Your task to perform on an android device: Open Yahoo.com Image 0: 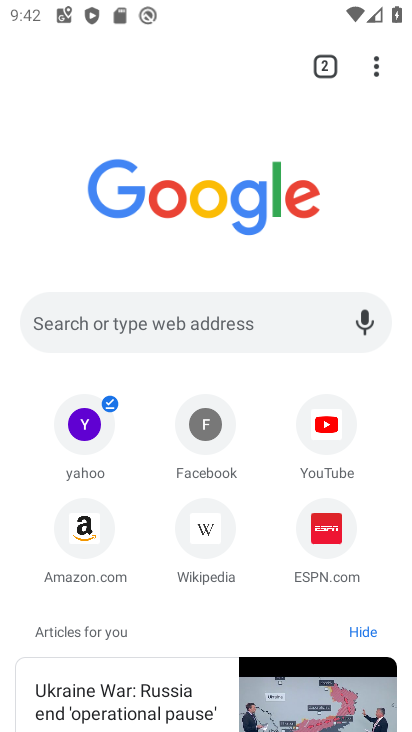
Step 0: click (82, 446)
Your task to perform on an android device: Open Yahoo.com Image 1: 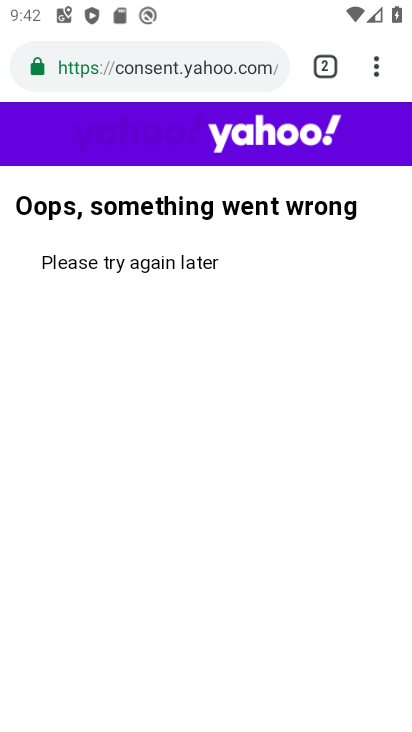
Step 1: click (378, 73)
Your task to perform on an android device: Open Yahoo.com Image 2: 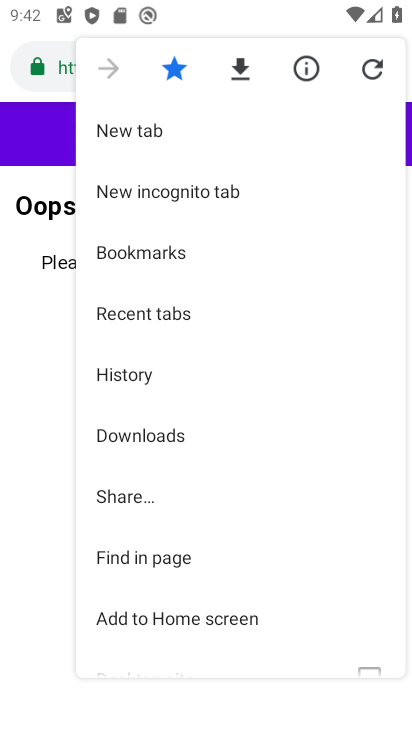
Step 2: click (135, 123)
Your task to perform on an android device: Open Yahoo.com Image 3: 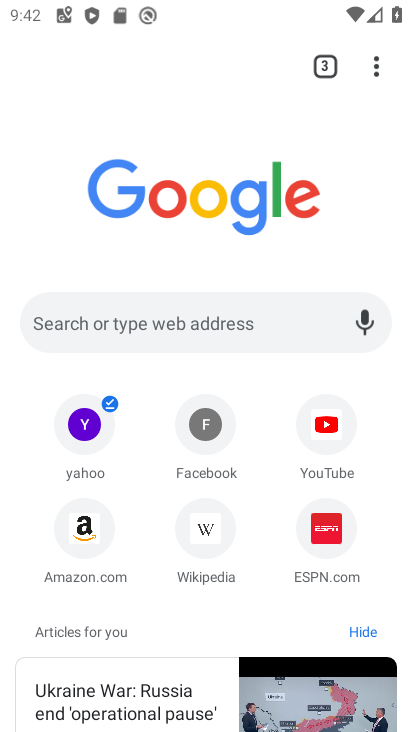
Step 3: click (159, 323)
Your task to perform on an android device: Open Yahoo.com Image 4: 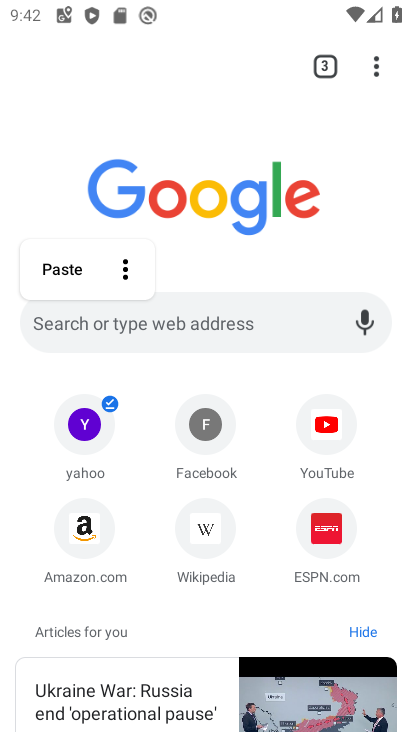
Step 4: type "yahoo.com"
Your task to perform on an android device: Open Yahoo.com Image 5: 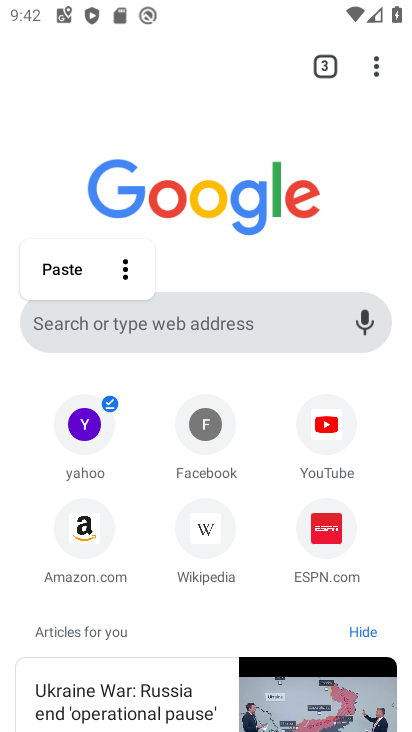
Step 5: click (238, 325)
Your task to perform on an android device: Open Yahoo.com Image 6: 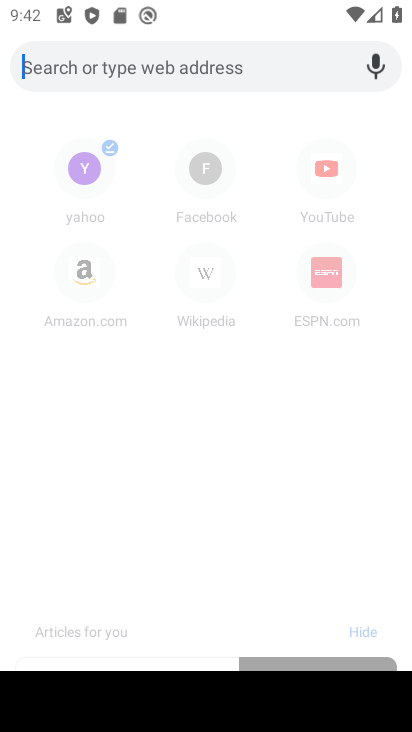
Step 6: type "yahoo.com"
Your task to perform on an android device: Open Yahoo.com Image 7: 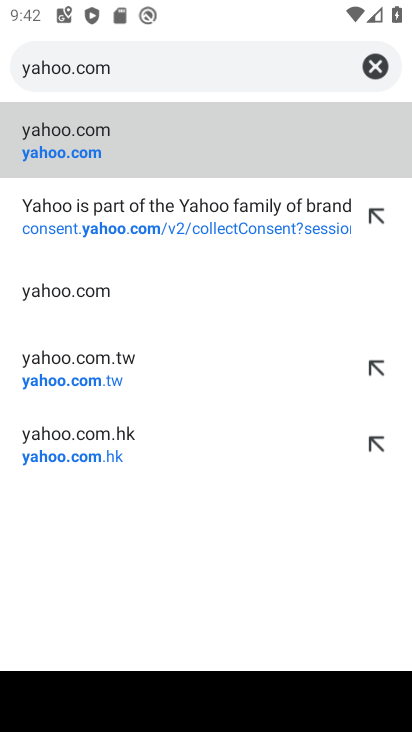
Step 7: click (86, 292)
Your task to perform on an android device: Open Yahoo.com Image 8: 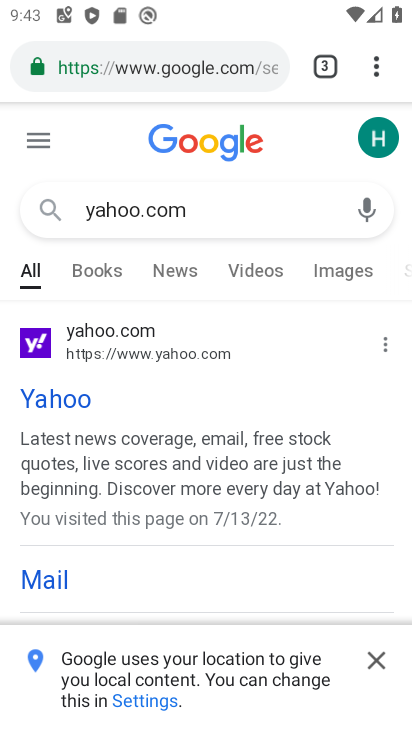
Step 8: click (70, 403)
Your task to perform on an android device: Open Yahoo.com Image 9: 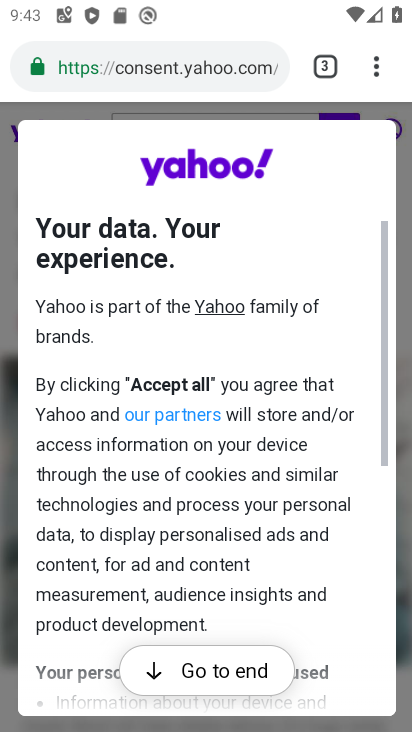
Step 9: click (201, 678)
Your task to perform on an android device: Open Yahoo.com Image 10: 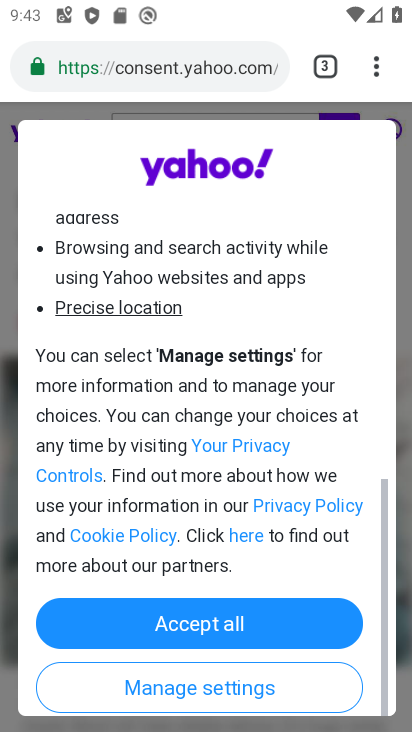
Step 10: click (219, 620)
Your task to perform on an android device: Open Yahoo.com Image 11: 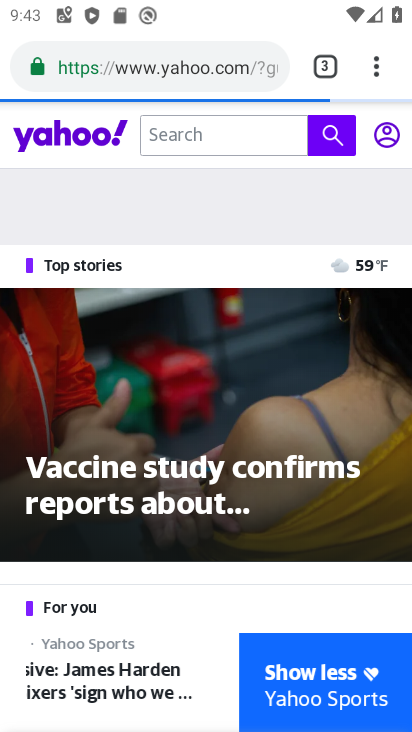
Step 11: task complete